Your task to perform on an android device: turn on translation in the chrome app Image 0: 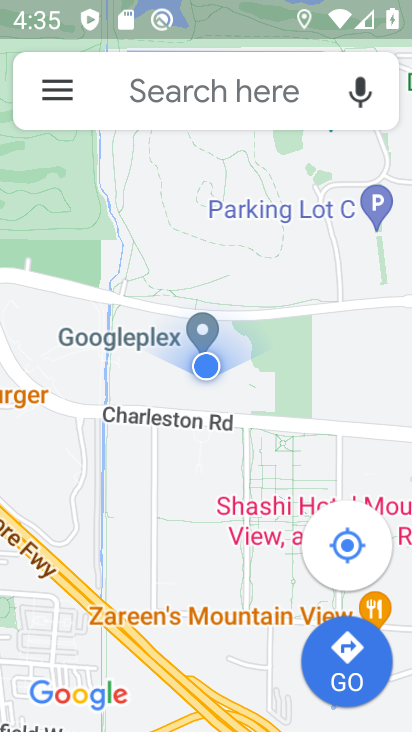
Step 0: press home button
Your task to perform on an android device: turn on translation in the chrome app Image 1: 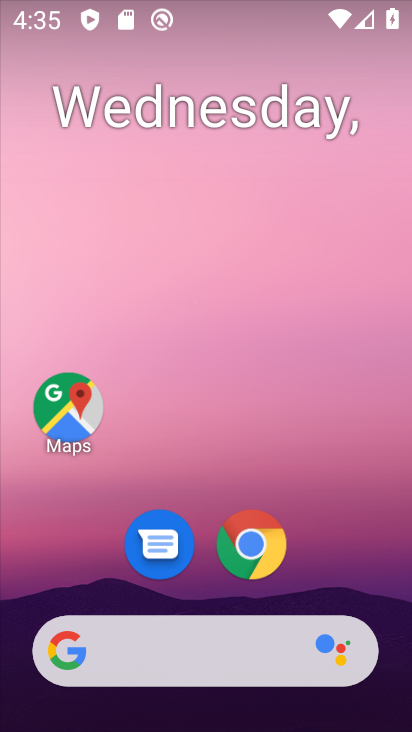
Step 1: click (240, 540)
Your task to perform on an android device: turn on translation in the chrome app Image 2: 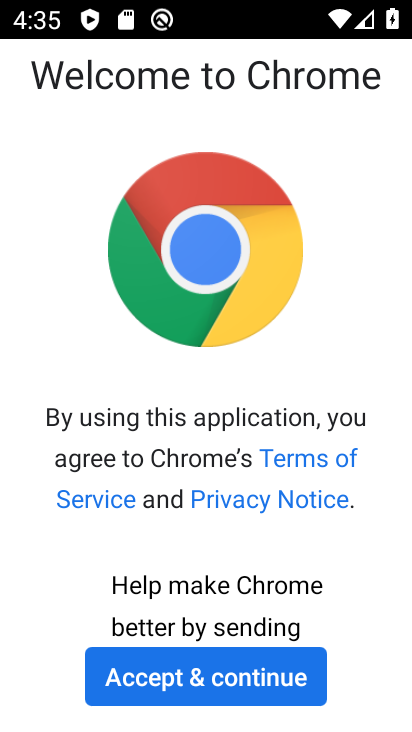
Step 2: click (184, 683)
Your task to perform on an android device: turn on translation in the chrome app Image 3: 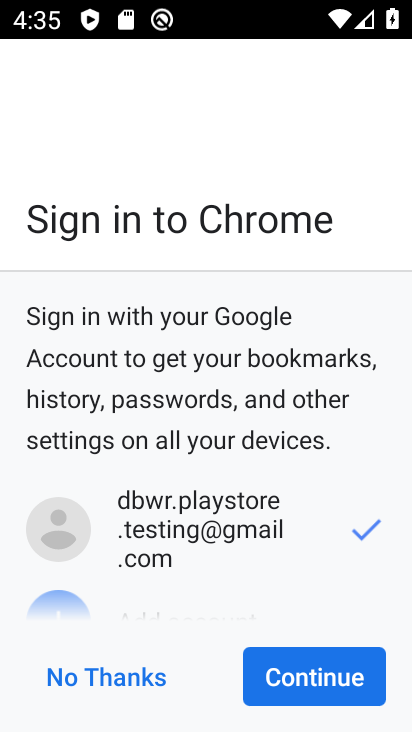
Step 3: click (262, 662)
Your task to perform on an android device: turn on translation in the chrome app Image 4: 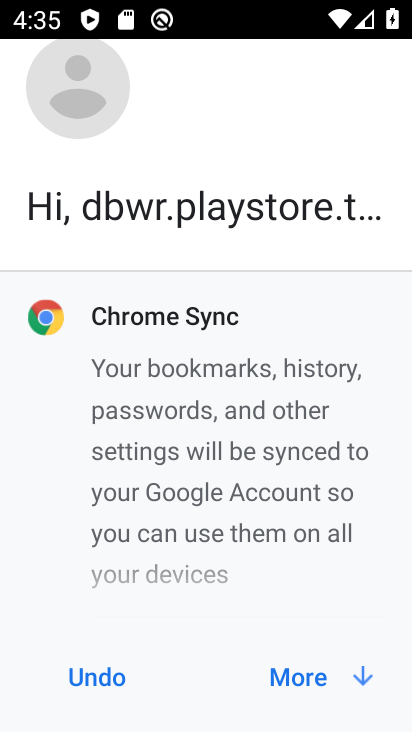
Step 4: click (294, 685)
Your task to perform on an android device: turn on translation in the chrome app Image 5: 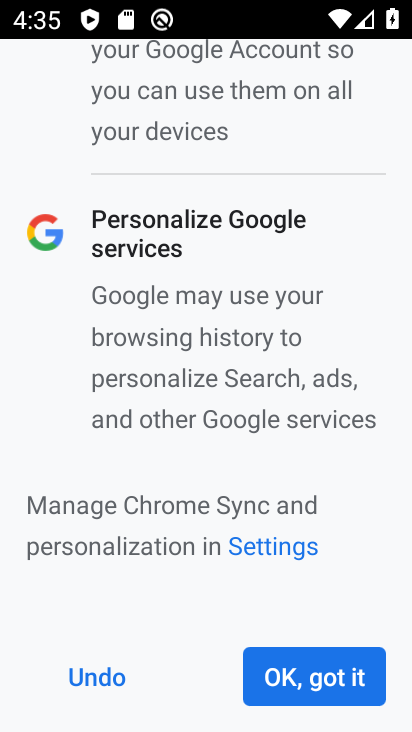
Step 5: click (294, 684)
Your task to perform on an android device: turn on translation in the chrome app Image 6: 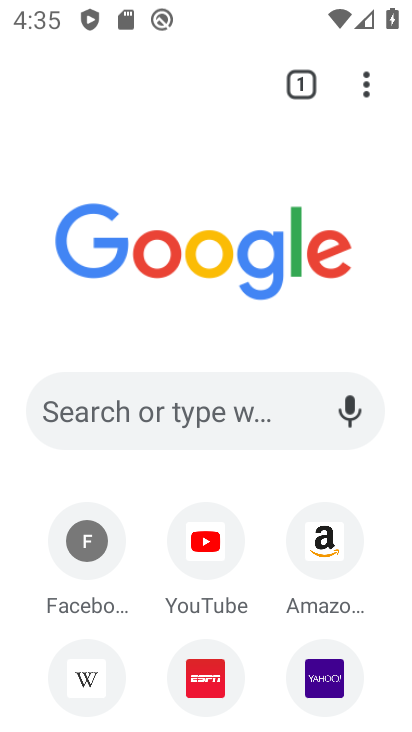
Step 6: click (364, 90)
Your task to perform on an android device: turn on translation in the chrome app Image 7: 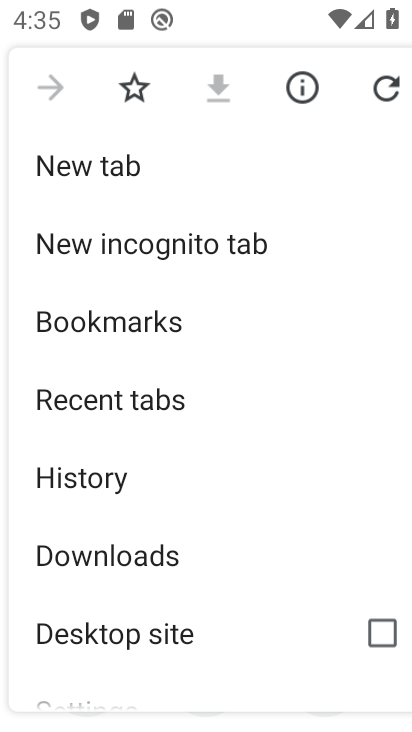
Step 7: drag from (244, 581) to (239, 325)
Your task to perform on an android device: turn on translation in the chrome app Image 8: 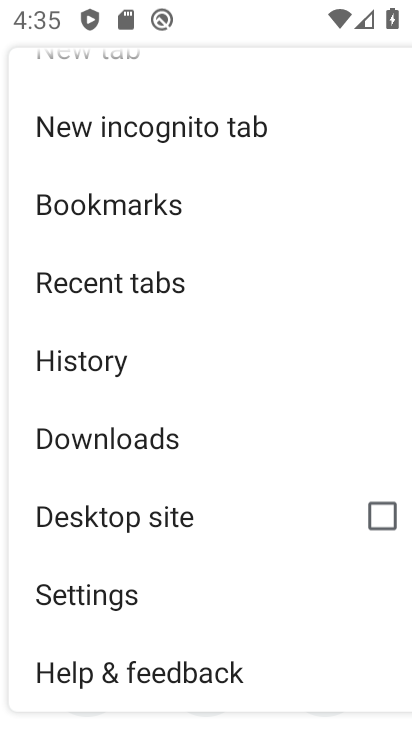
Step 8: drag from (271, 669) to (254, 366)
Your task to perform on an android device: turn on translation in the chrome app Image 9: 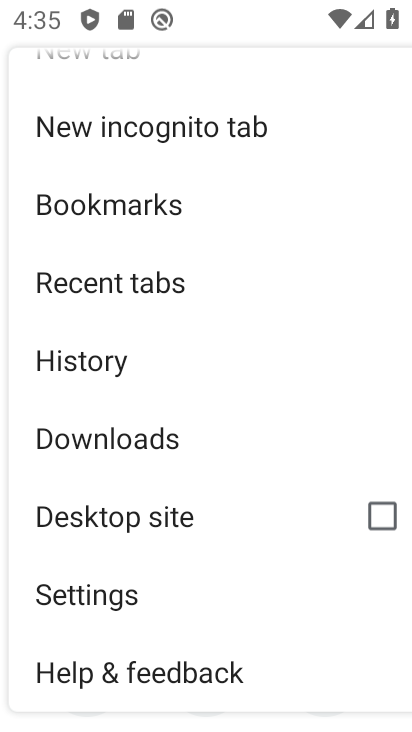
Step 9: drag from (249, 603) to (253, 310)
Your task to perform on an android device: turn on translation in the chrome app Image 10: 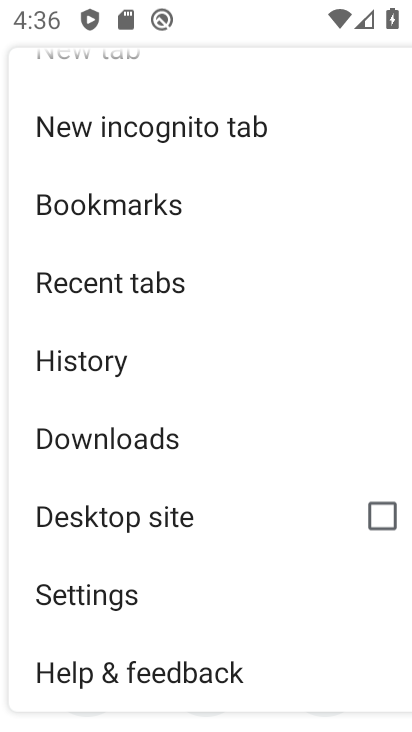
Step 10: click (96, 595)
Your task to perform on an android device: turn on translation in the chrome app Image 11: 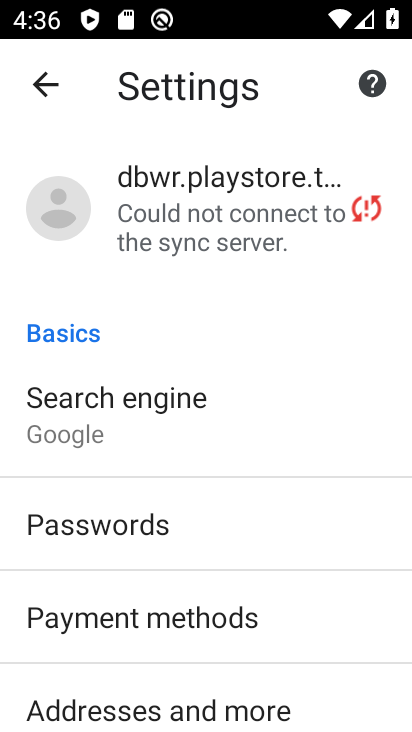
Step 11: drag from (185, 669) to (177, 301)
Your task to perform on an android device: turn on translation in the chrome app Image 12: 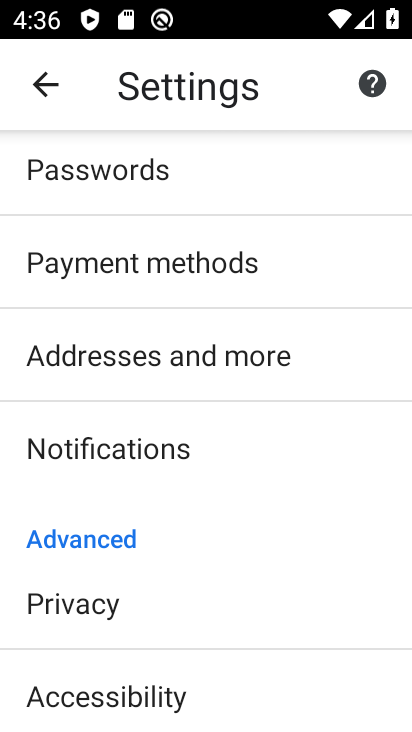
Step 12: drag from (202, 660) to (180, 315)
Your task to perform on an android device: turn on translation in the chrome app Image 13: 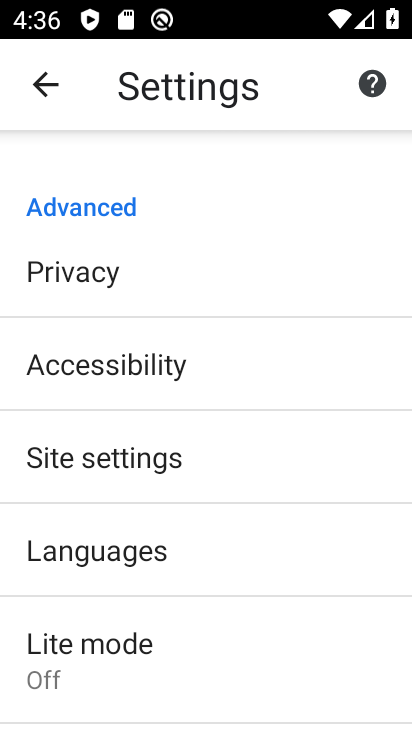
Step 13: click (147, 544)
Your task to perform on an android device: turn on translation in the chrome app Image 14: 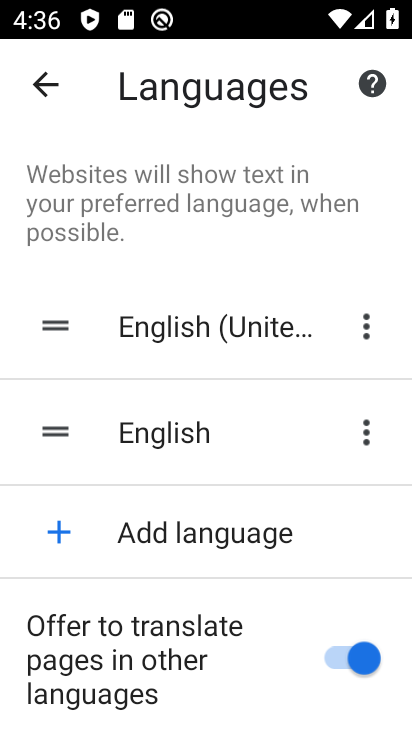
Step 14: task complete